Your task to perform on an android device: delete browsing data in the chrome app Image 0: 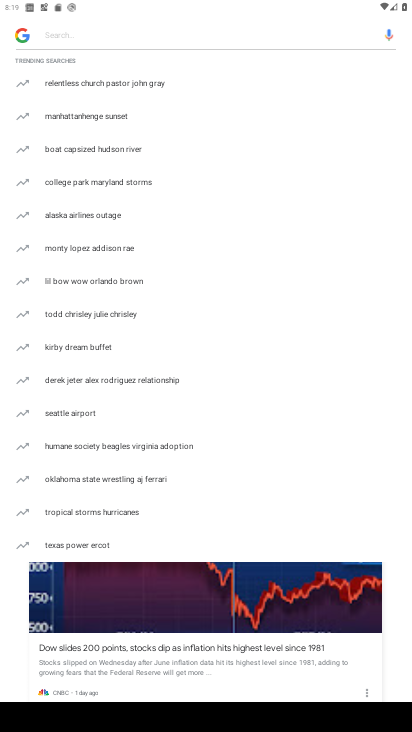
Step 0: press home button
Your task to perform on an android device: delete browsing data in the chrome app Image 1: 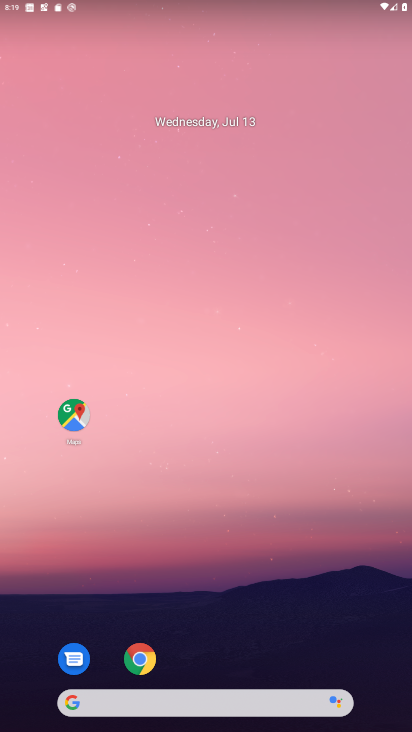
Step 1: click (142, 656)
Your task to perform on an android device: delete browsing data in the chrome app Image 2: 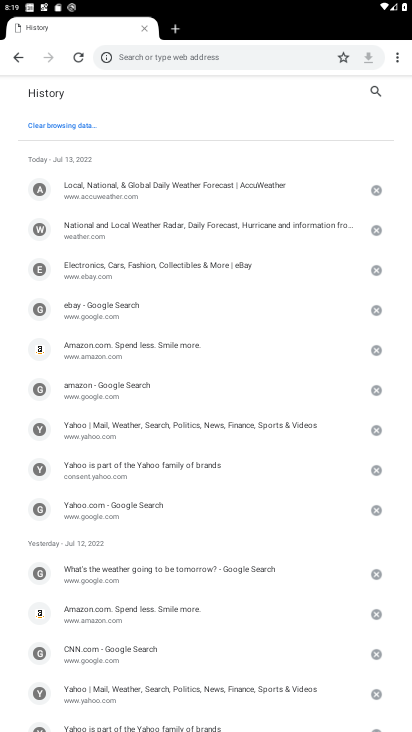
Step 2: click (63, 122)
Your task to perform on an android device: delete browsing data in the chrome app Image 3: 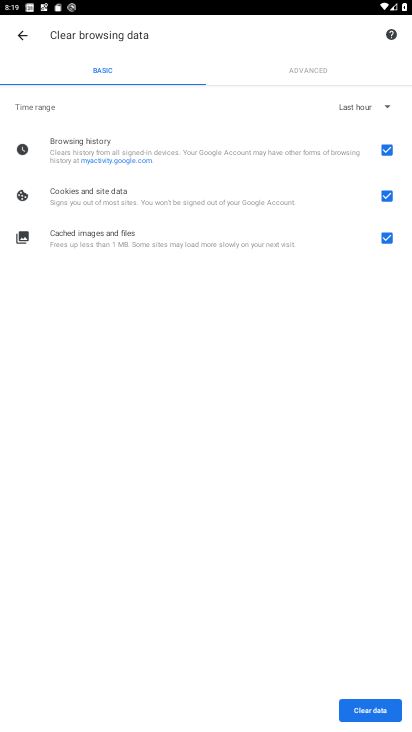
Step 3: click (381, 105)
Your task to perform on an android device: delete browsing data in the chrome app Image 4: 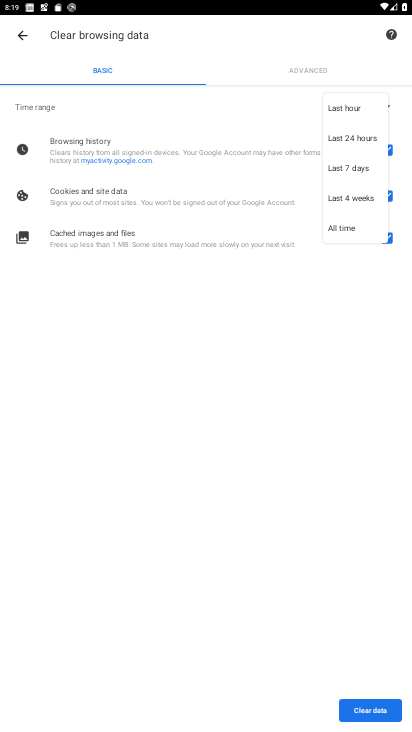
Step 4: click (344, 226)
Your task to perform on an android device: delete browsing data in the chrome app Image 5: 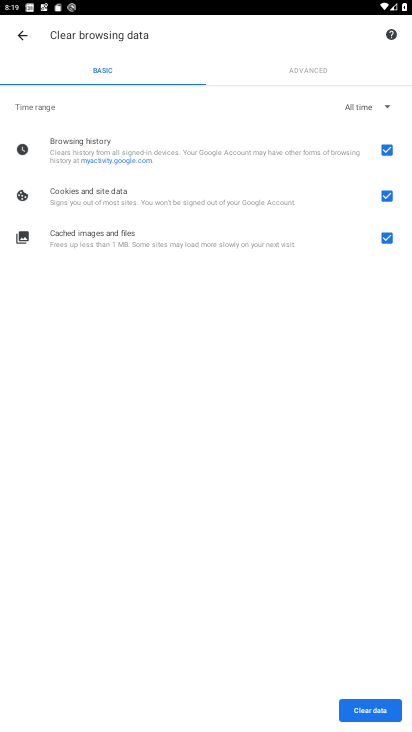
Step 5: click (373, 704)
Your task to perform on an android device: delete browsing data in the chrome app Image 6: 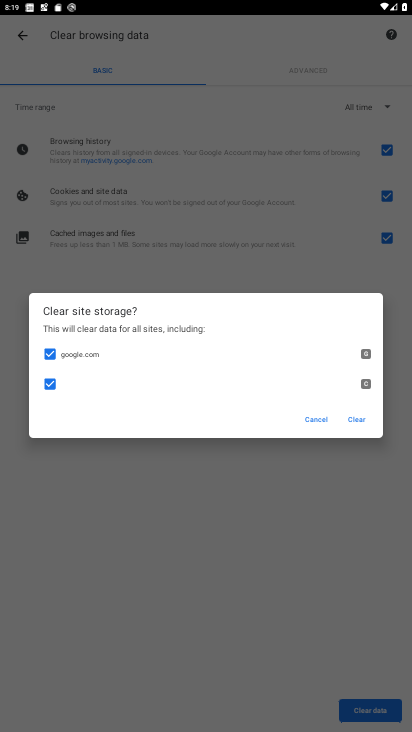
Step 6: click (356, 415)
Your task to perform on an android device: delete browsing data in the chrome app Image 7: 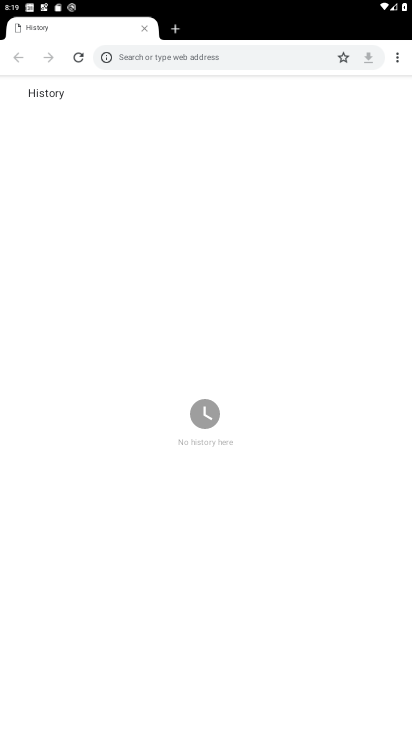
Step 7: task complete